Your task to perform on an android device: turn off smart reply in the gmail app Image 0: 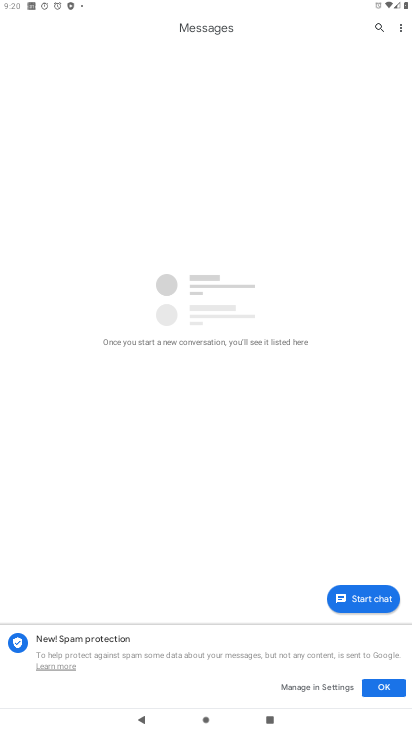
Step 0: press home button
Your task to perform on an android device: turn off smart reply in the gmail app Image 1: 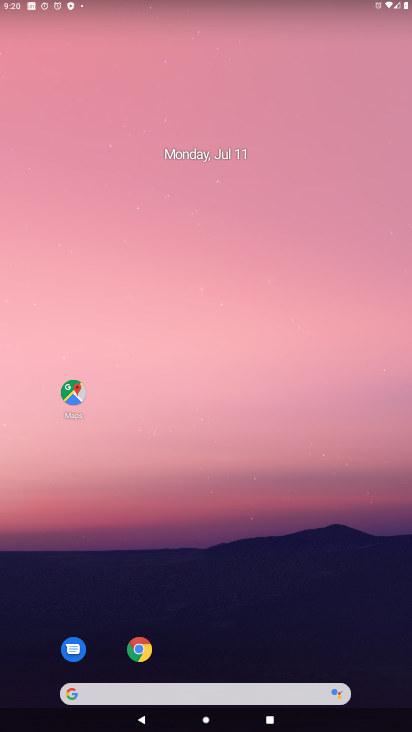
Step 1: drag from (198, 691) to (200, 234)
Your task to perform on an android device: turn off smart reply in the gmail app Image 2: 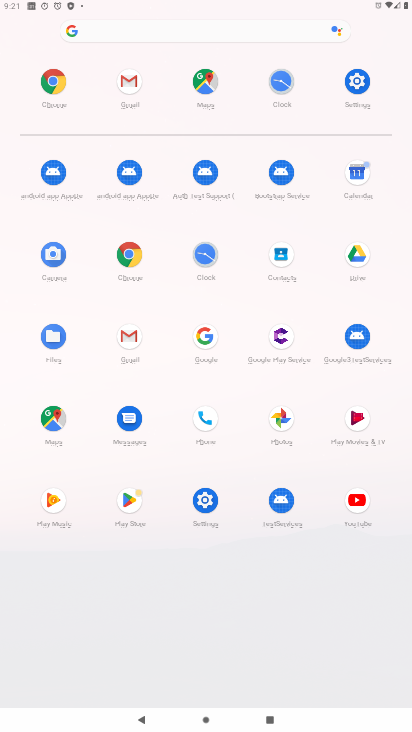
Step 2: click (129, 335)
Your task to perform on an android device: turn off smart reply in the gmail app Image 3: 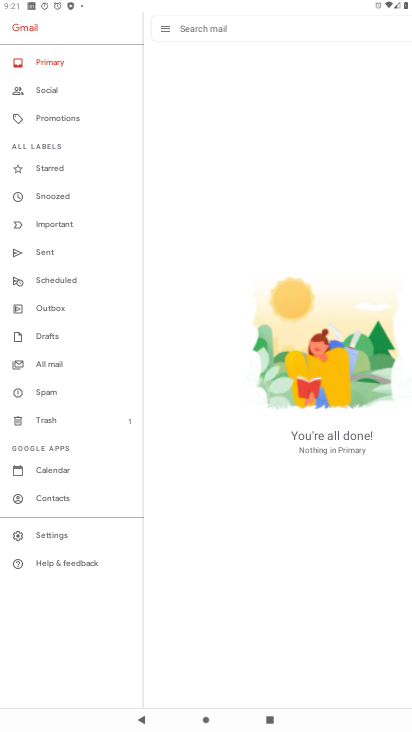
Step 3: click (59, 537)
Your task to perform on an android device: turn off smart reply in the gmail app Image 4: 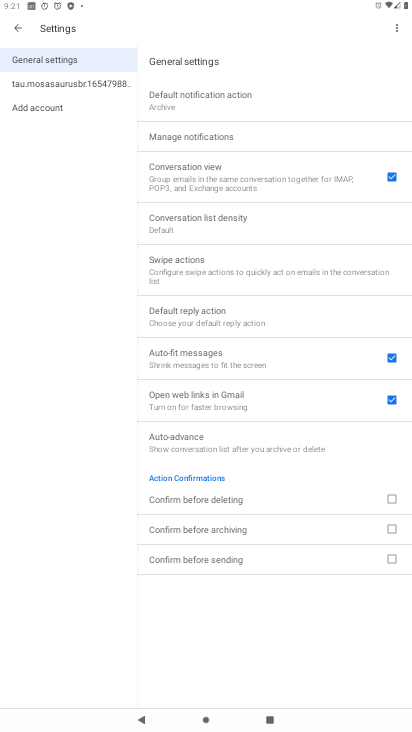
Step 4: click (82, 76)
Your task to perform on an android device: turn off smart reply in the gmail app Image 5: 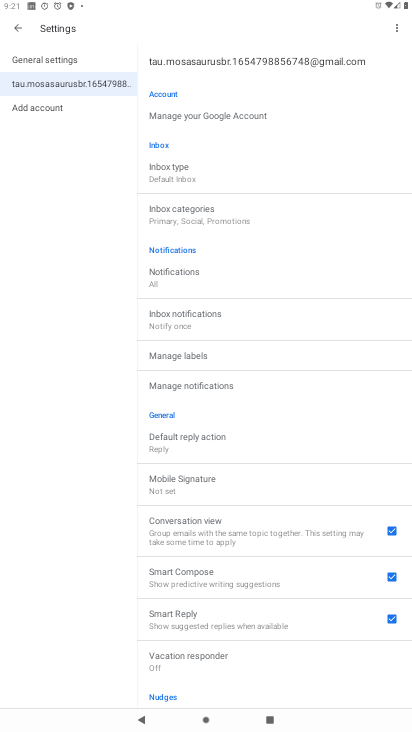
Step 5: click (391, 613)
Your task to perform on an android device: turn off smart reply in the gmail app Image 6: 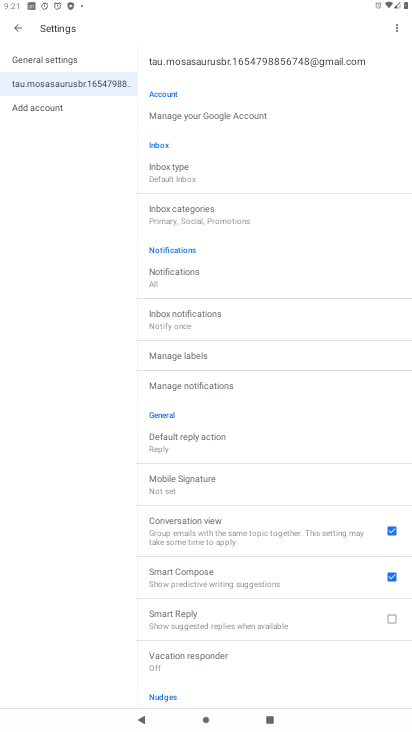
Step 6: task complete